Your task to perform on an android device: Open the calendar and show me this week's events? Image 0: 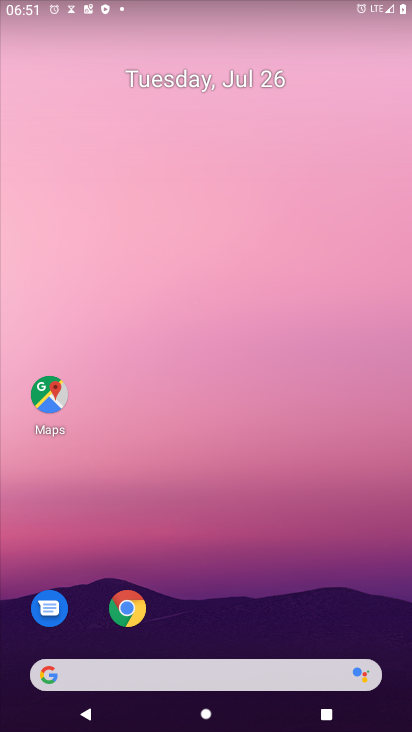
Step 0: press home button
Your task to perform on an android device: Open the calendar and show me this week's events? Image 1: 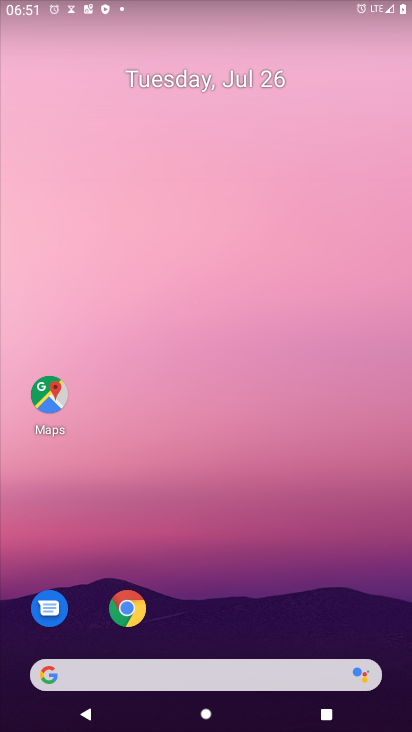
Step 1: press home button
Your task to perform on an android device: Open the calendar and show me this week's events? Image 2: 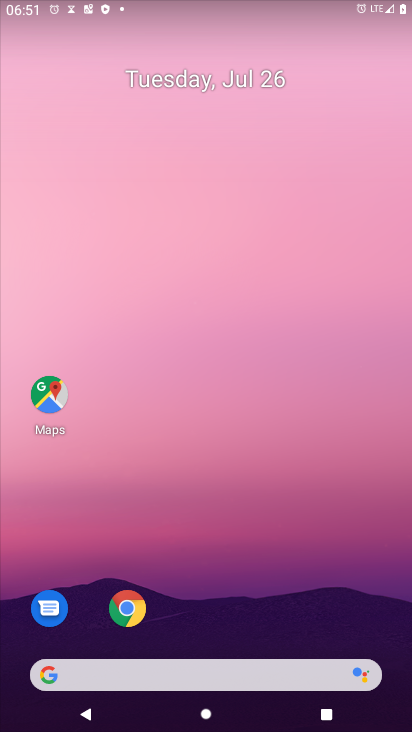
Step 2: drag from (261, 633) to (257, 27)
Your task to perform on an android device: Open the calendar and show me this week's events? Image 3: 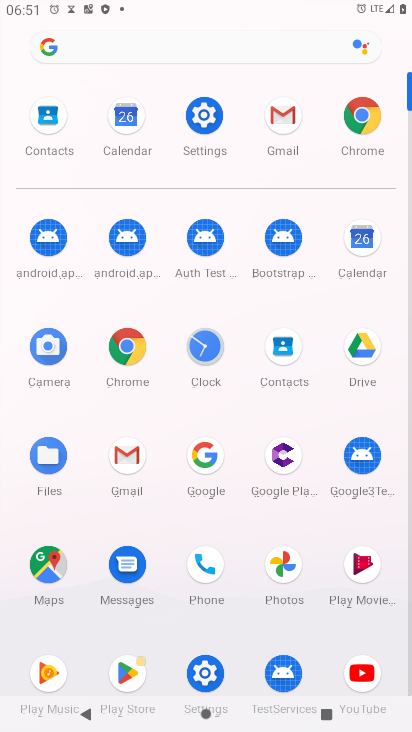
Step 3: click (368, 245)
Your task to perform on an android device: Open the calendar and show me this week's events? Image 4: 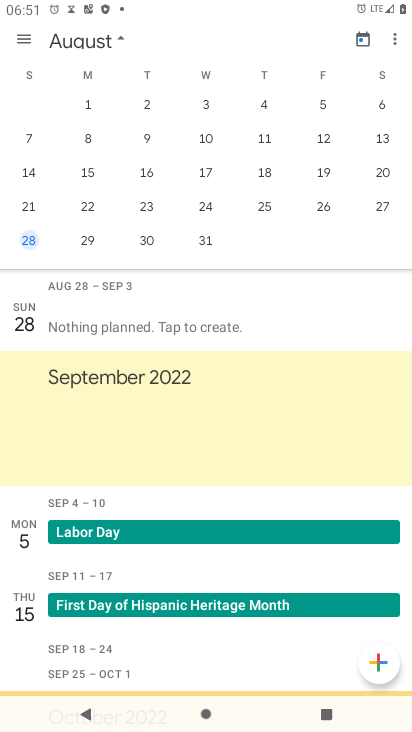
Step 4: task complete